Your task to perform on an android device: When is my next appointment? Image 0: 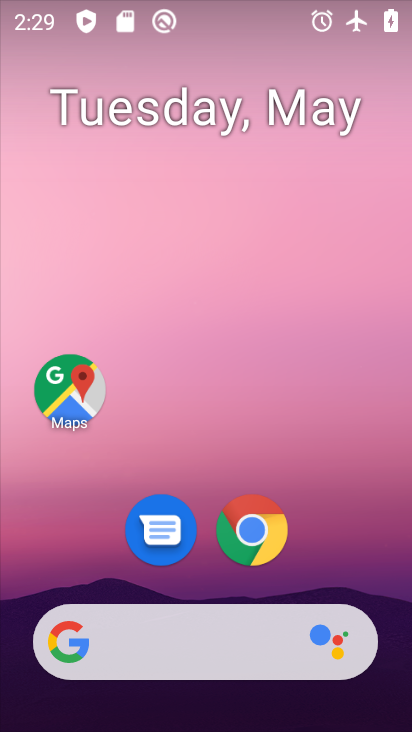
Step 0: drag from (207, 581) to (219, 156)
Your task to perform on an android device: When is my next appointment? Image 1: 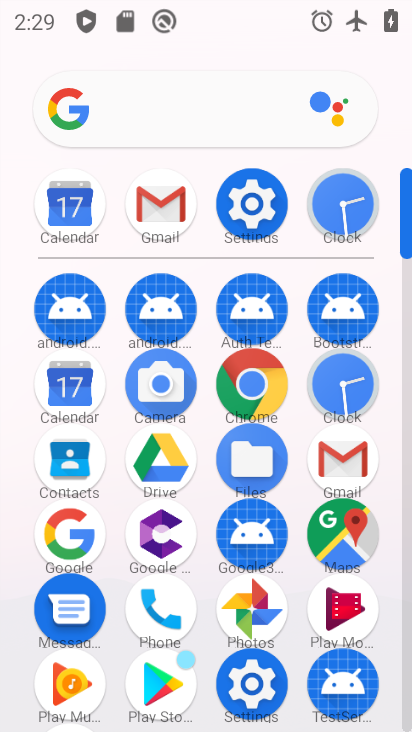
Step 1: click (60, 393)
Your task to perform on an android device: When is my next appointment? Image 2: 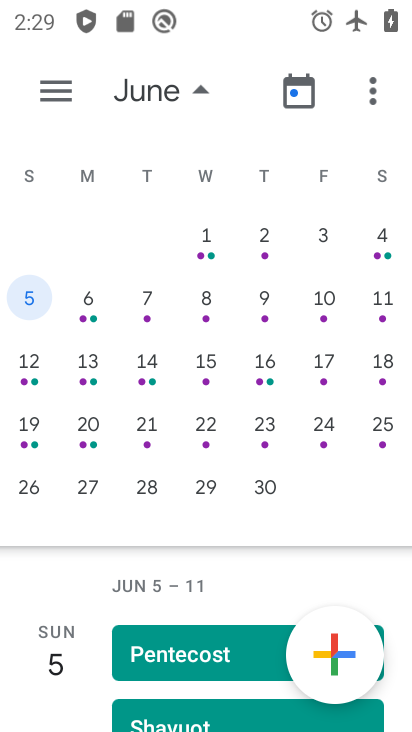
Step 2: drag from (234, 613) to (308, 265)
Your task to perform on an android device: When is my next appointment? Image 3: 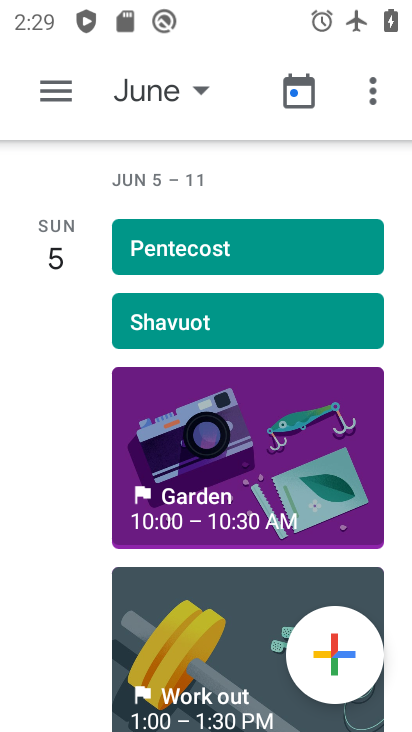
Step 3: drag from (179, 608) to (252, 367)
Your task to perform on an android device: When is my next appointment? Image 4: 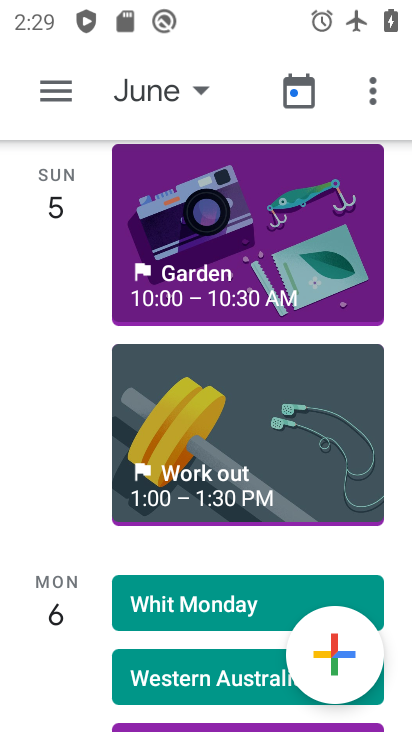
Step 4: drag from (219, 569) to (273, 360)
Your task to perform on an android device: When is my next appointment? Image 5: 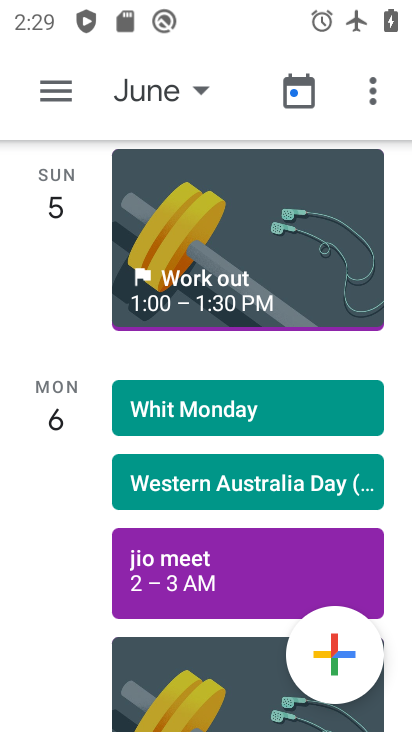
Step 5: drag from (191, 709) to (236, 342)
Your task to perform on an android device: When is my next appointment? Image 6: 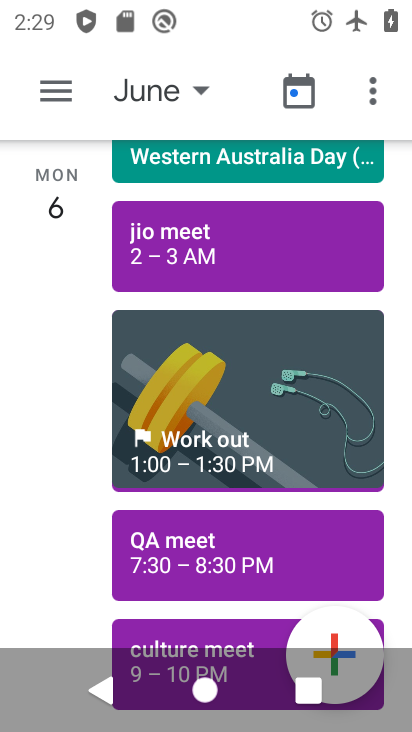
Step 6: drag from (233, 550) to (272, 305)
Your task to perform on an android device: When is my next appointment? Image 7: 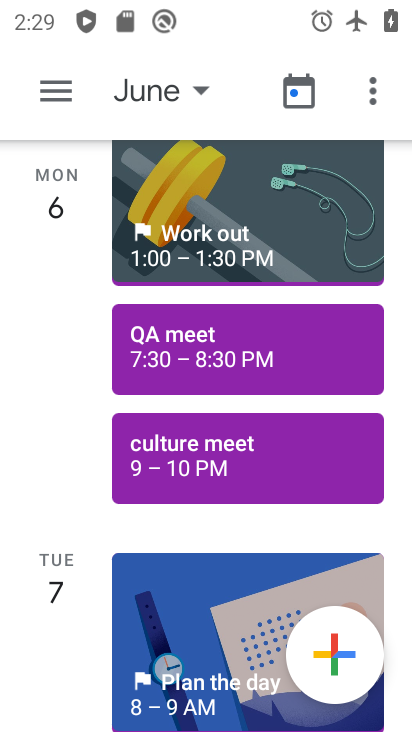
Step 7: drag from (247, 509) to (288, 286)
Your task to perform on an android device: When is my next appointment? Image 8: 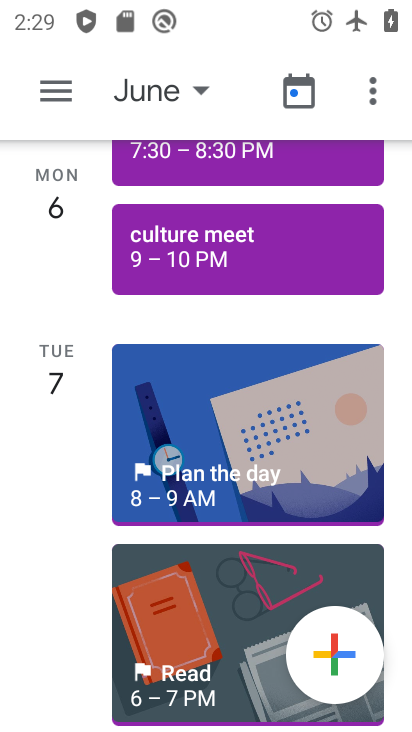
Step 8: drag from (268, 606) to (277, 322)
Your task to perform on an android device: When is my next appointment? Image 9: 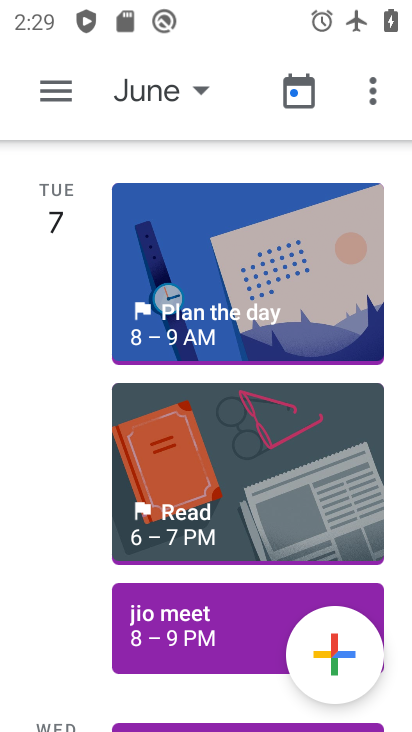
Step 9: drag from (225, 585) to (265, 315)
Your task to perform on an android device: When is my next appointment? Image 10: 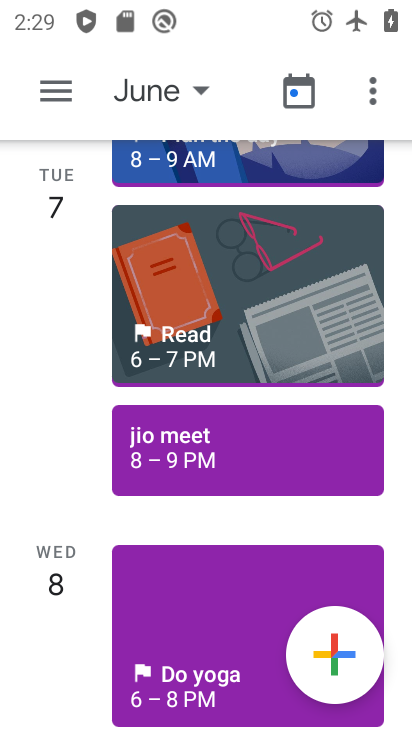
Step 10: click (303, 445)
Your task to perform on an android device: When is my next appointment? Image 11: 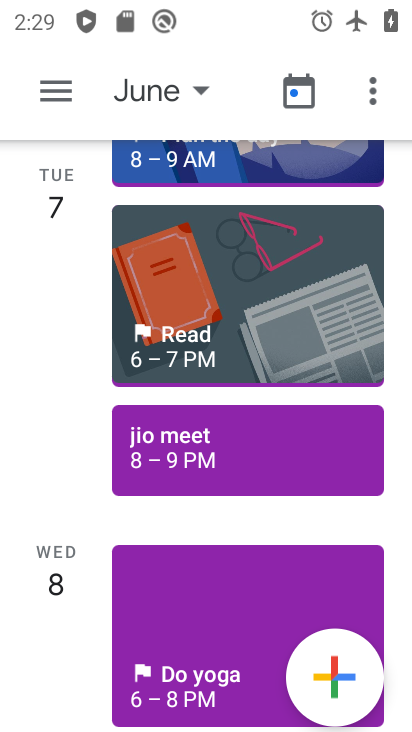
Step 11: task complete